Your task to perform on an android device: turn on showing notifications on the lock screen Image 0: 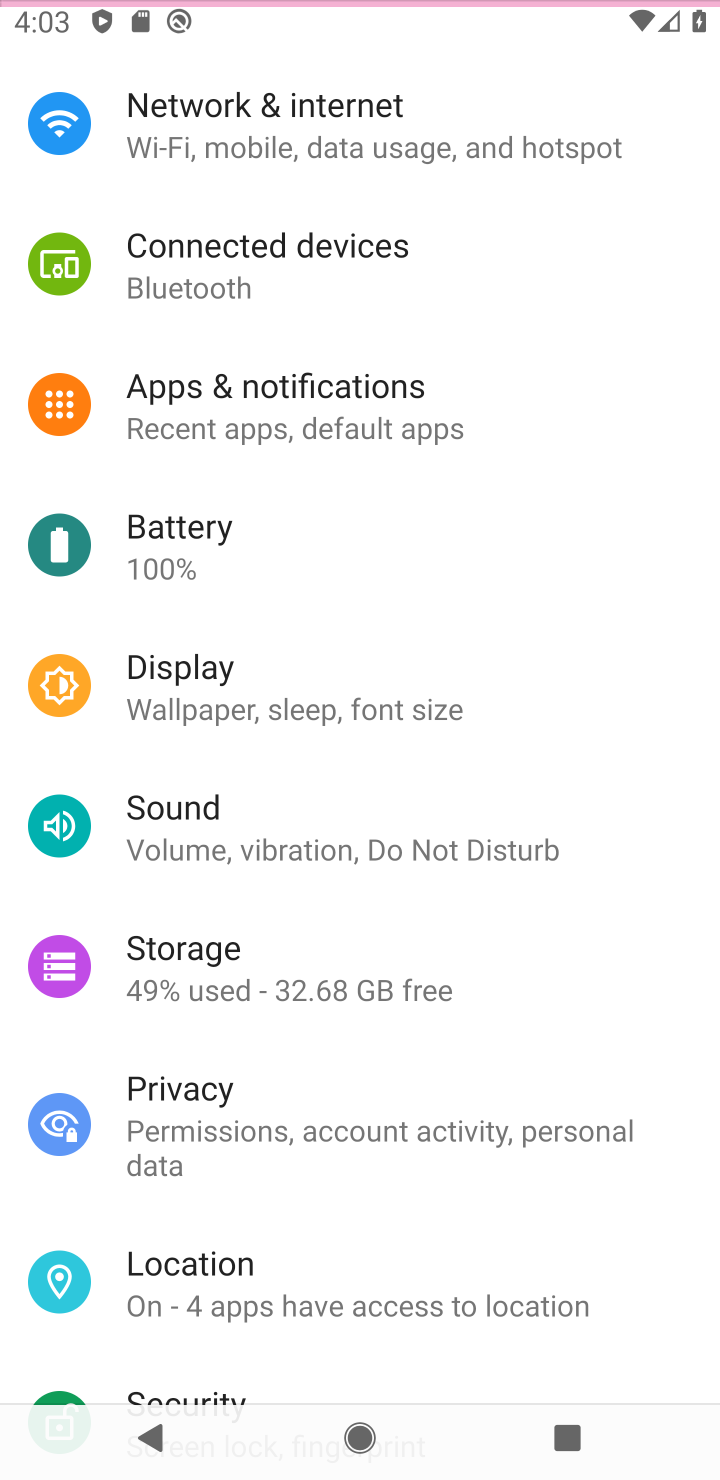
Step 0: click (374, 772)
Your task to perform on an android device: turn on showing notifications on the lock screen Image 1: 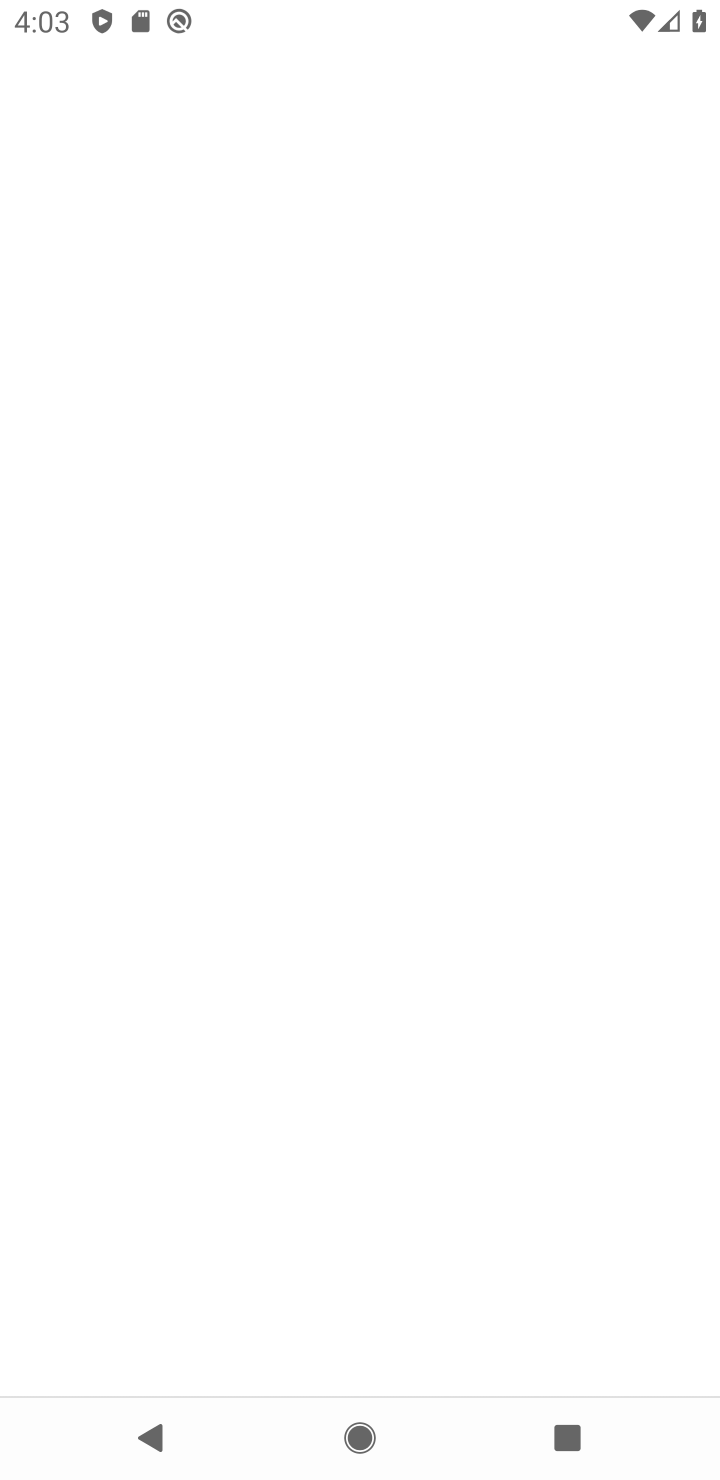
Step 1: drag from (368, 19) to (439, 656)
Your task to perform on an android device: turn on showing notifications on the lock screen Image 2: 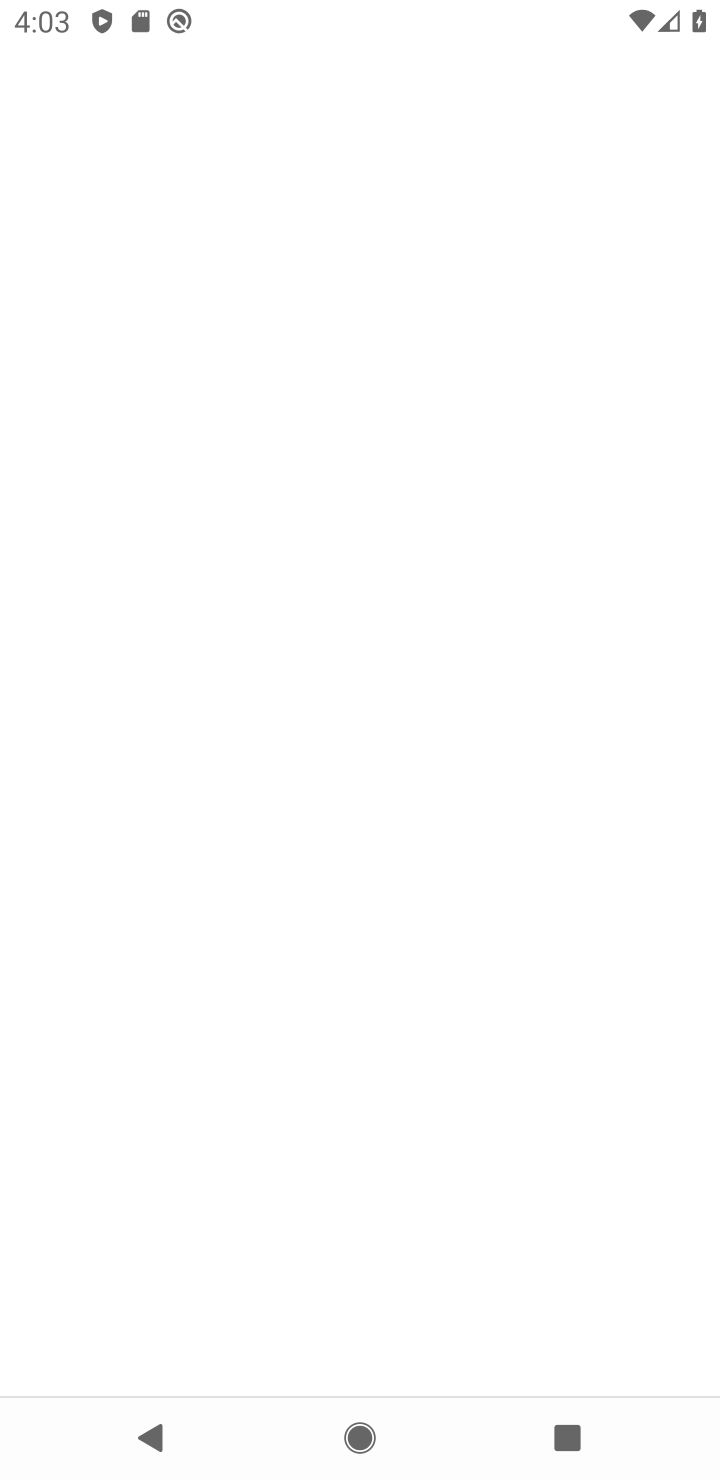
Step 2: drag from (402, 11) to (441, 814)
Your task to perform on an android device: turn on showing notifications on the lock screen Image 3: 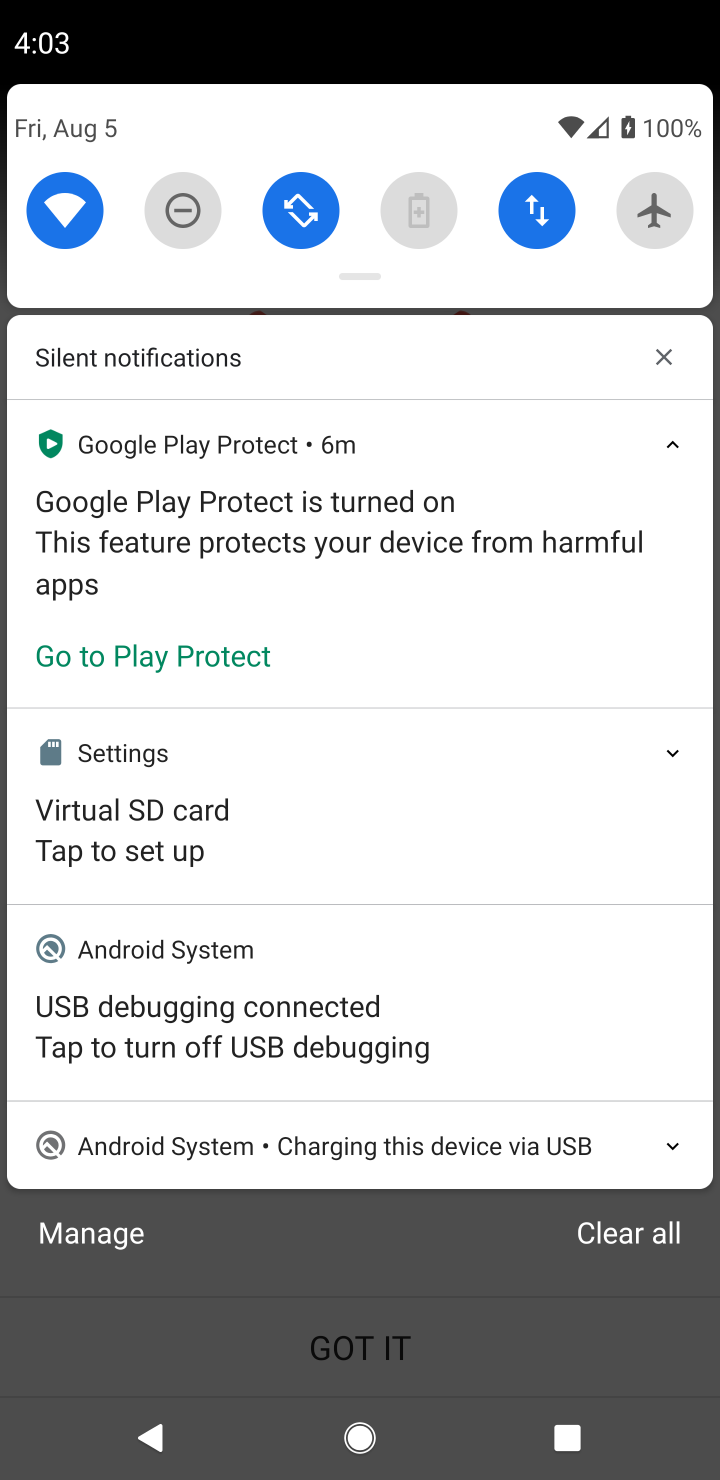
Step 3: press home button
Your task to perform on an android device: turn on showing notifications on the lock screen Image 4: 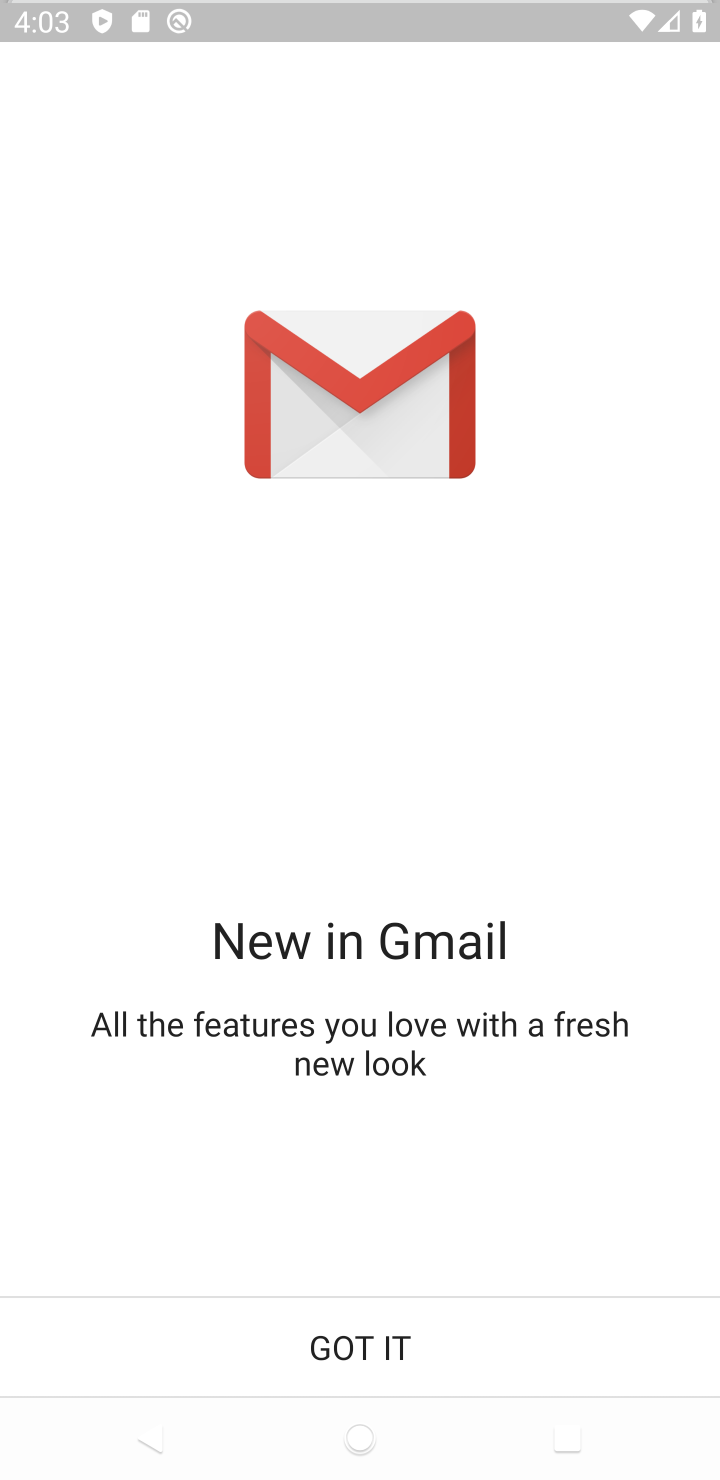
Step 4: click (349, 1343)
Your task to perform on an android device: turn on showing notifications on the lock screen Image 5: 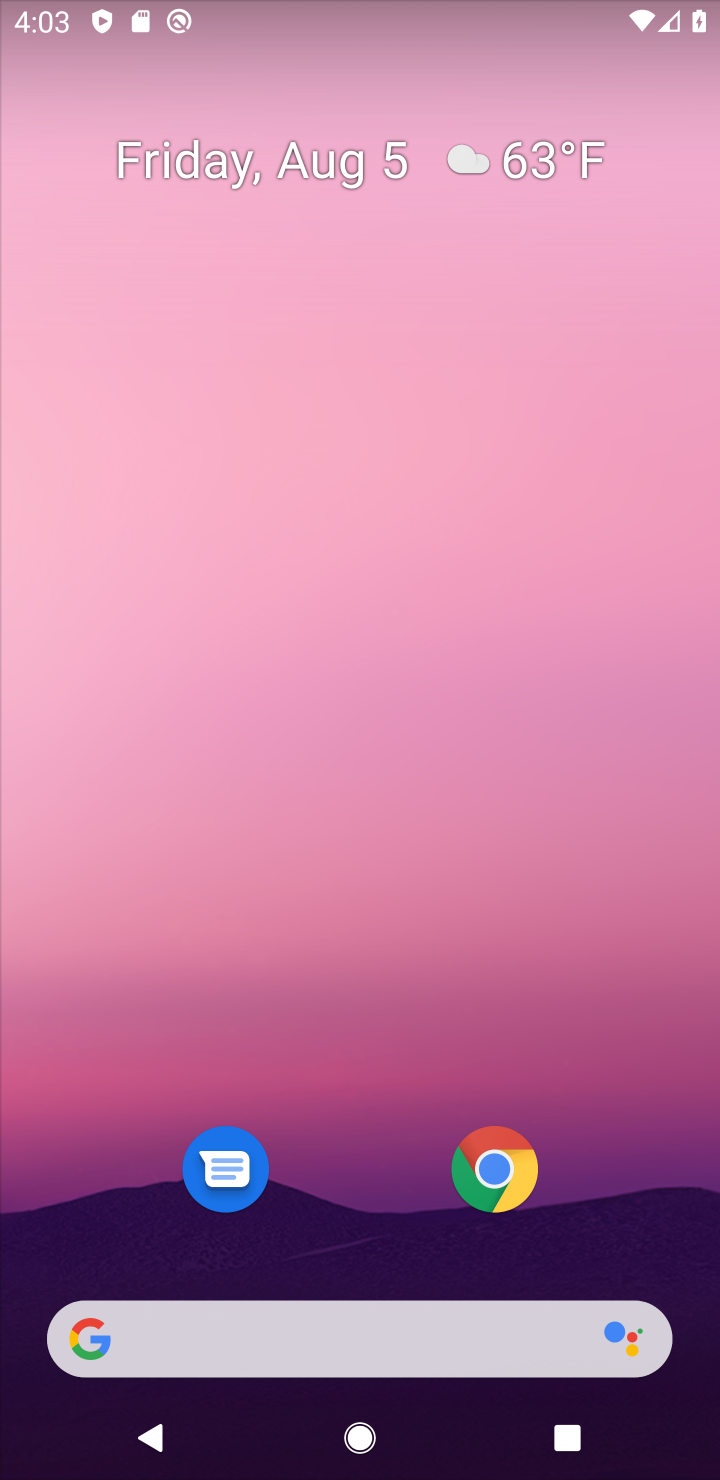
Step 5: drag from (336, 1275) to (367, 318)
Your task to perform on an android device: turn on showing notifications on the lock screen Image 6: 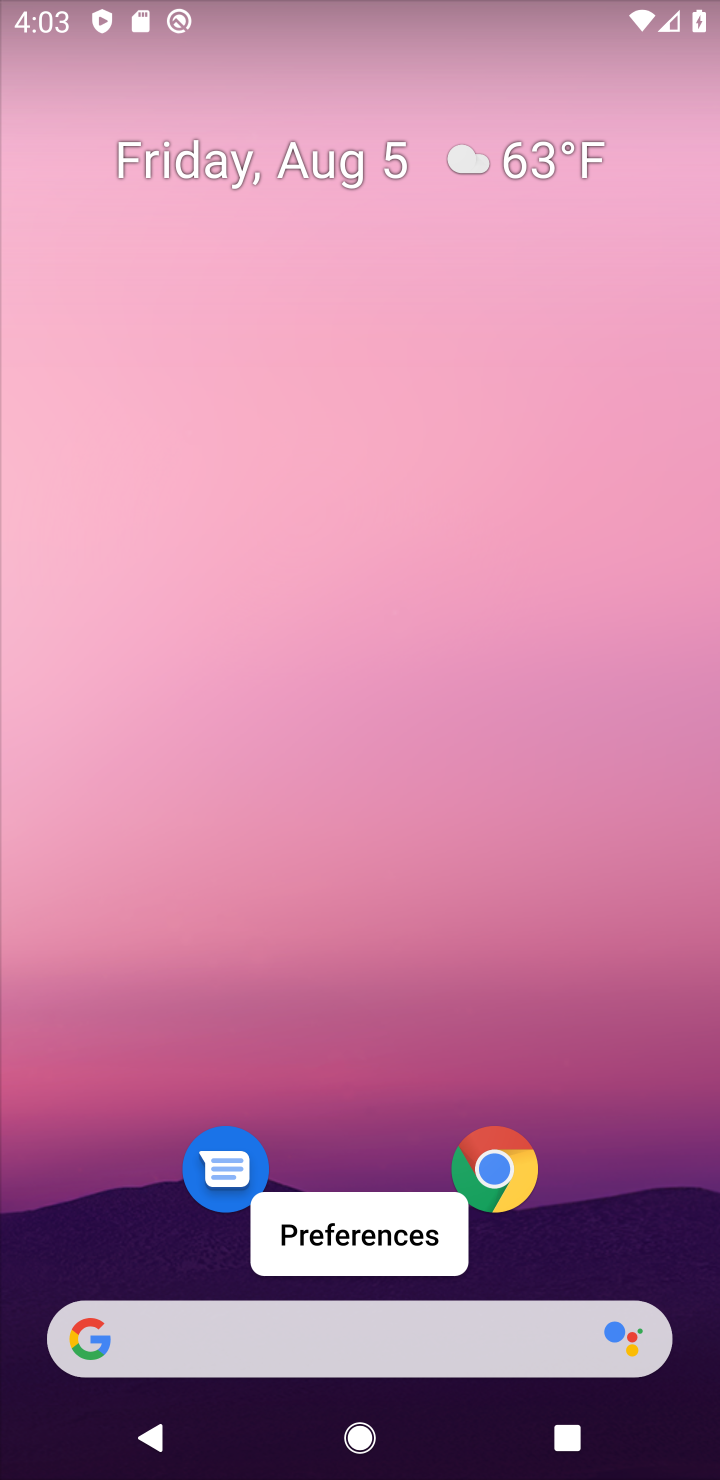
Step 6: drag from (429, 1320) to (431, 429)
Your task to perform on an android device: turn on showing notifications on the lock screen Image 7: 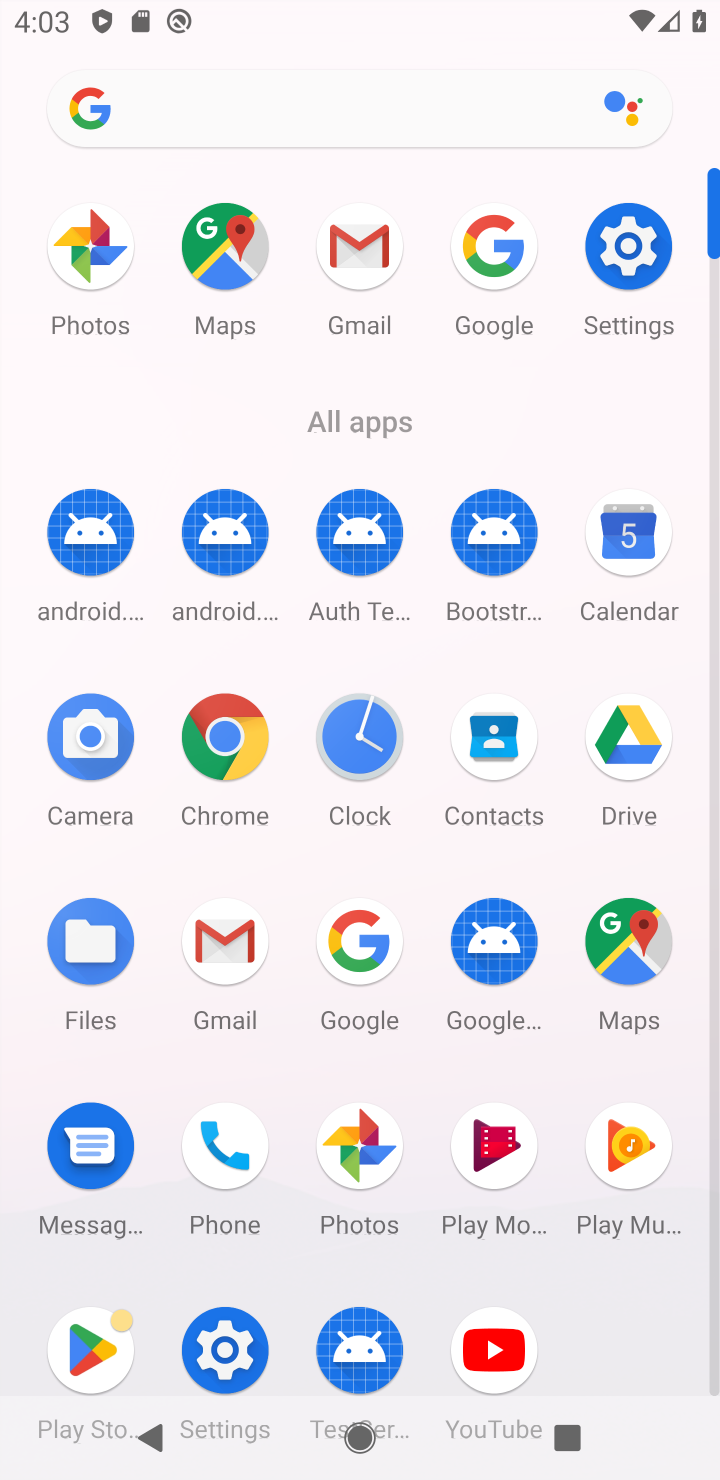
Step 7: click (621, 250)
Your task to perform on an android device: turn on showing notifications on the lock screen Image 8: 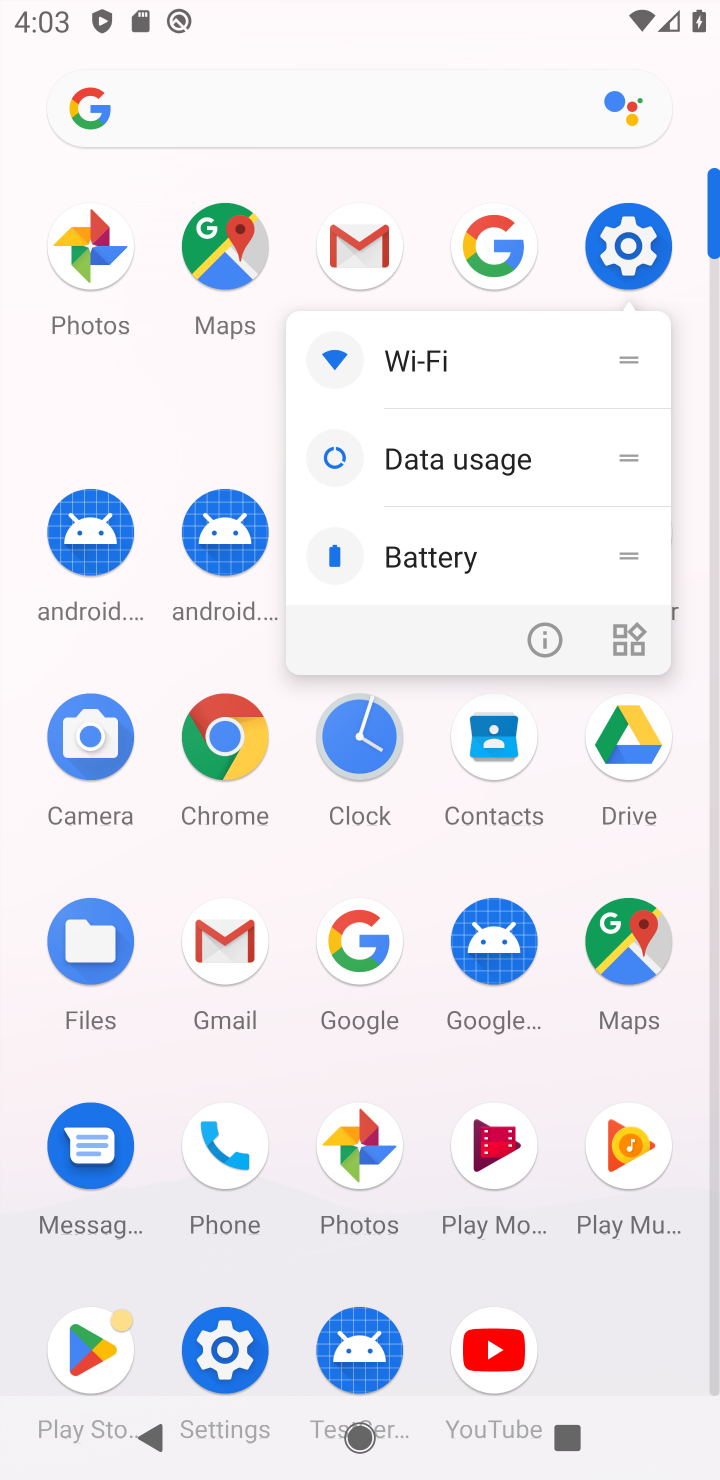
Step 8: click (610, 258)
Your task to perform on an android device: turn on showing notifications on the lock screen Image 9: 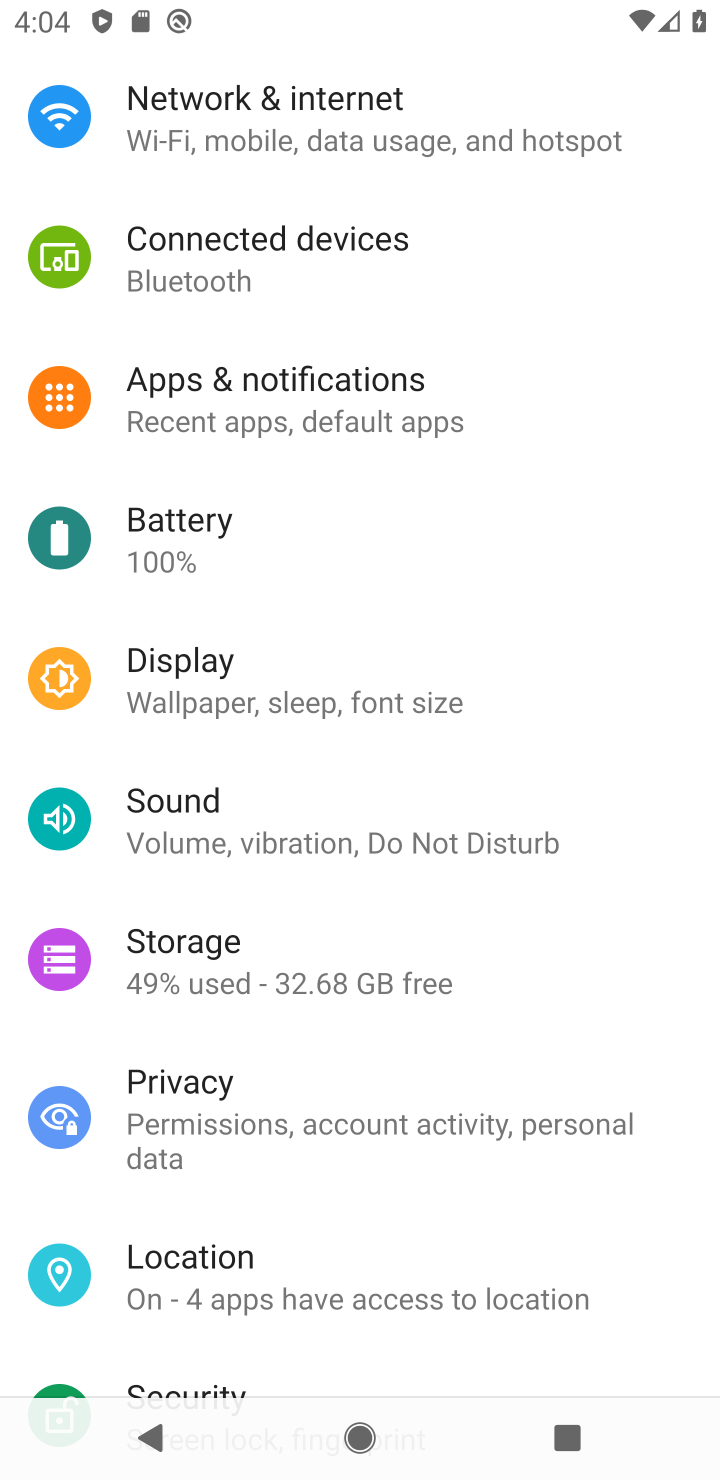
Step 9: click (201, 391)
Your task to perform on an android device: turn on showing notifications on the lock screen Image 10: 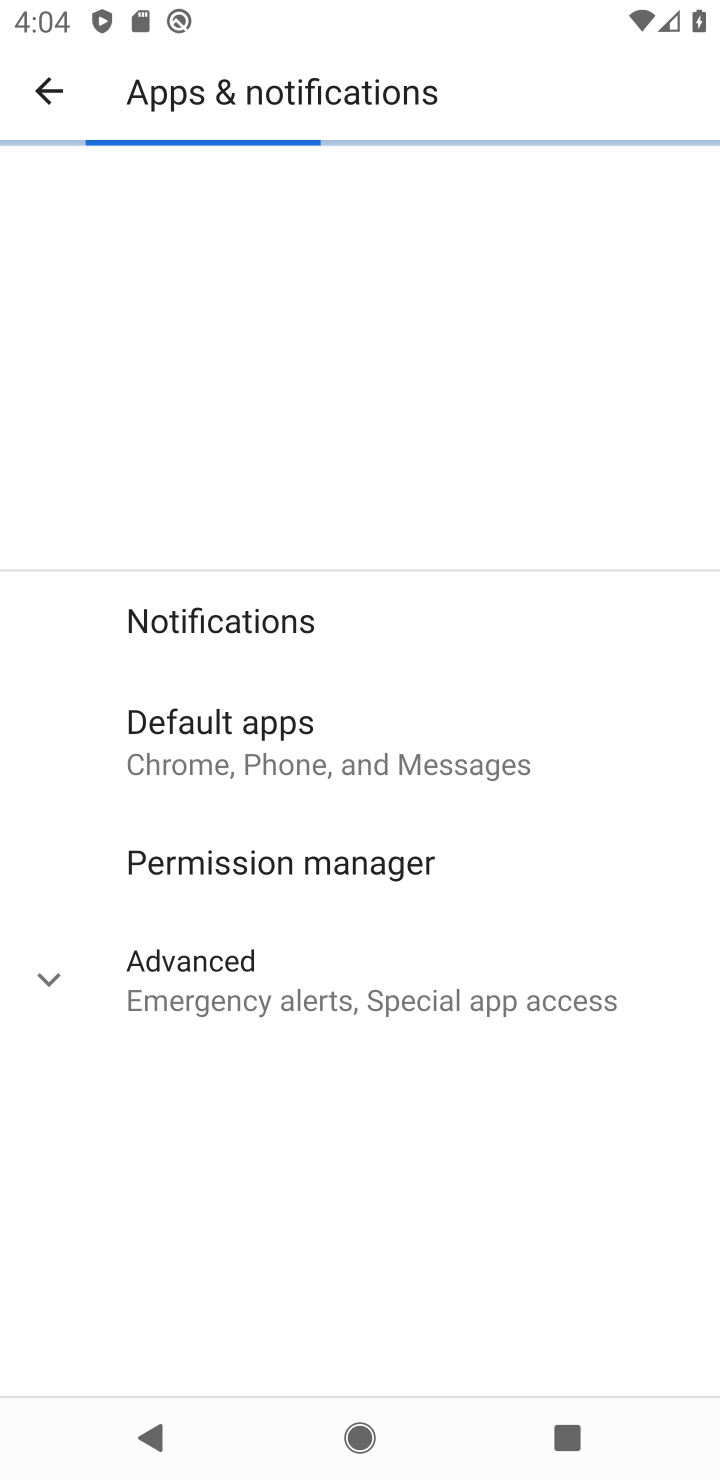
Step 10: click (264, 623)
Your task to perform on an android device: turn on showing notifications on the lock screen Image 11: 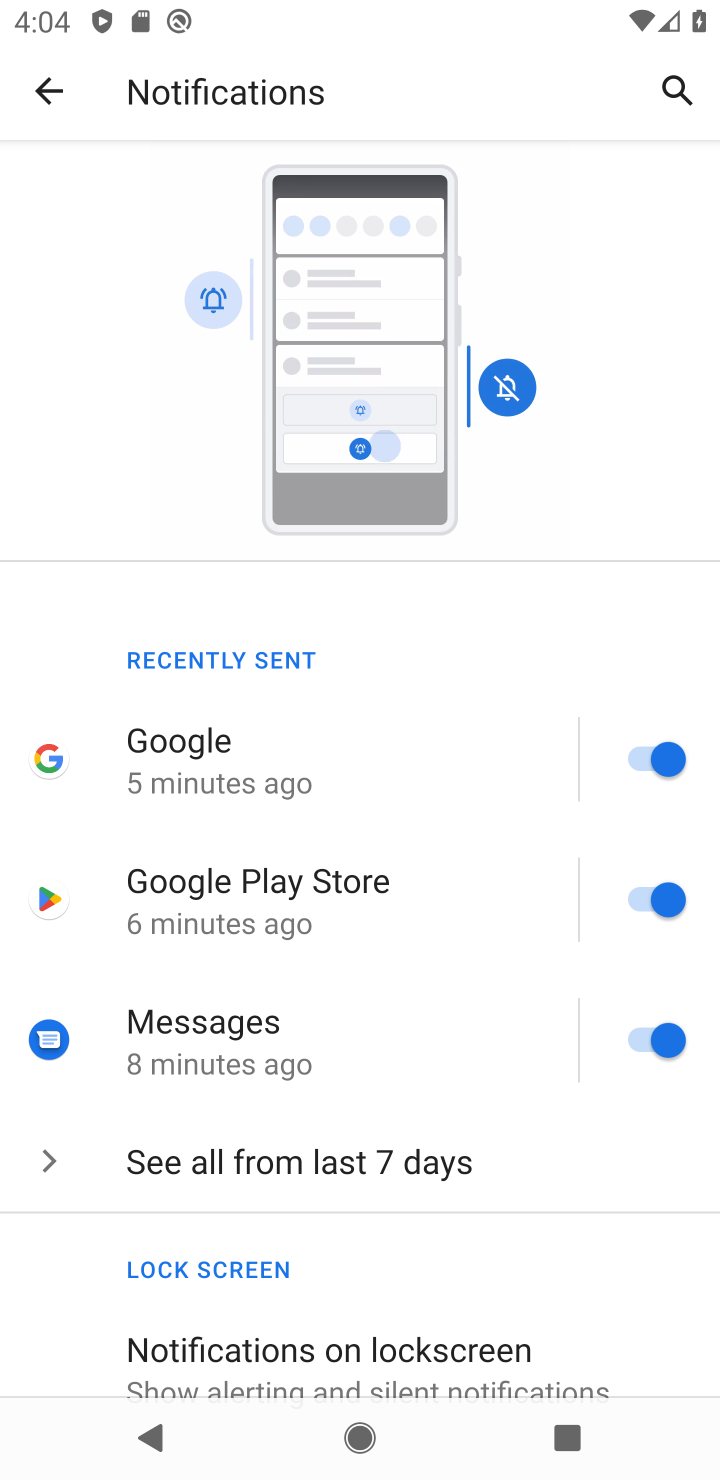
Step 11: click (259, 1347)
Your task to perform on an android device: turn on showing notifications on the lock screen Image 12: 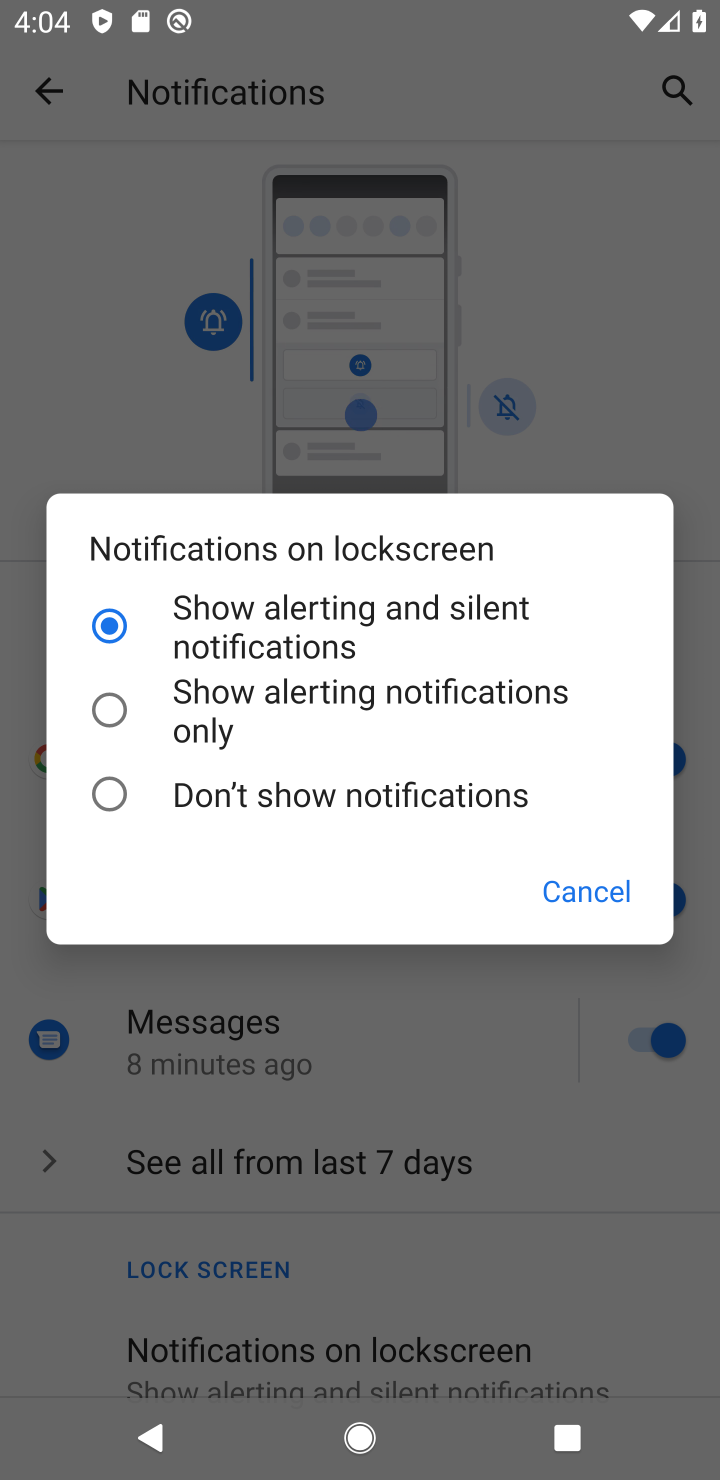
Step 12: task complete